Your task to perform on an android device: turn off notifications in google photos Image 0: 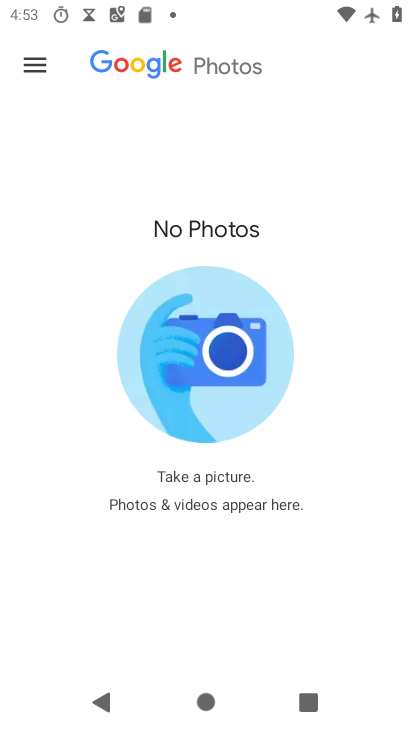
Step 0: press home button
Your task to perform on an android device: turn off notifications in google photos Image 1: 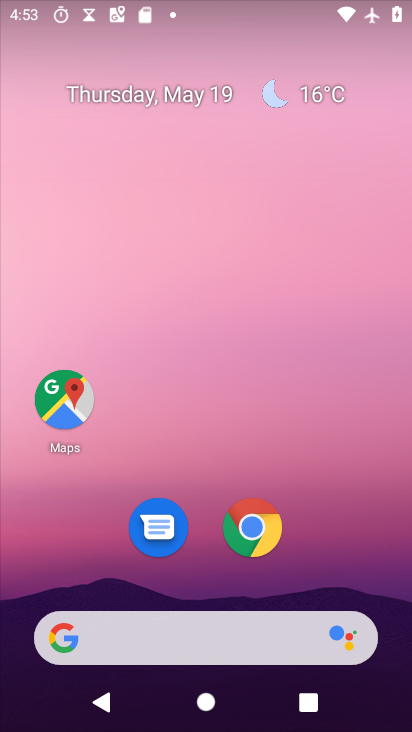
Step 1: drag from (340, 571) to (172, 109)
Your task to perform on an android device: turn off notifications in google photos Image 2: 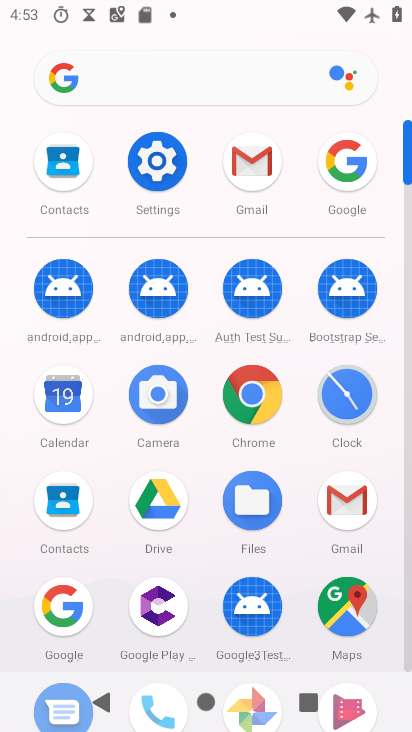
Step 2: drag from (301, 644) to (248, 346)
Your task to perform on an android device: turn off notifications in google photos Image 3: 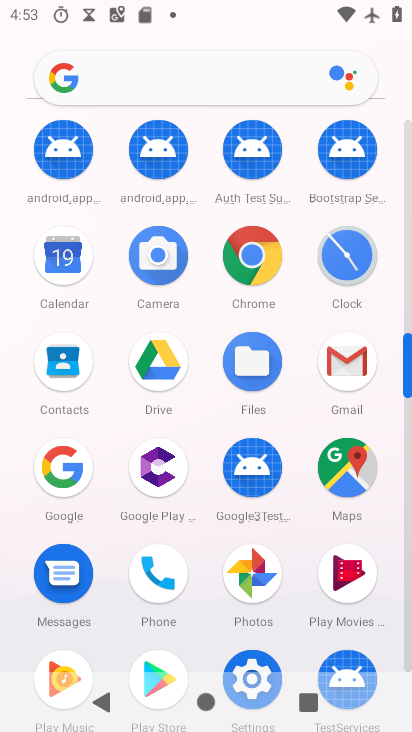
Step 3: click (249, 574)
Your task to perform on an android device: turn off notifications in google photos Image 4: 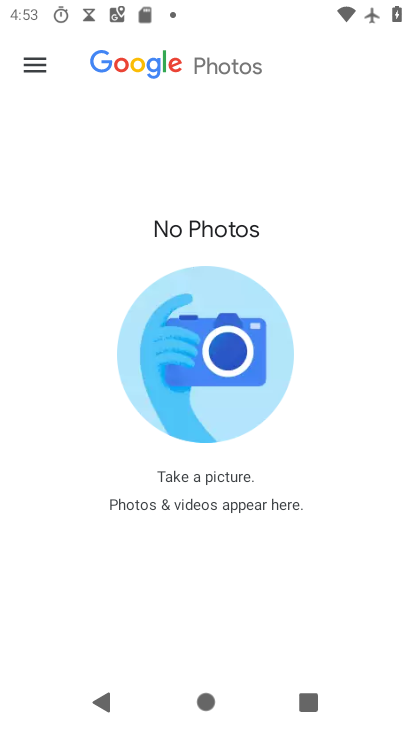
Step 4: click (36, 62)
Your task to perform on an android device: turn off notifications in google photos Image 5: 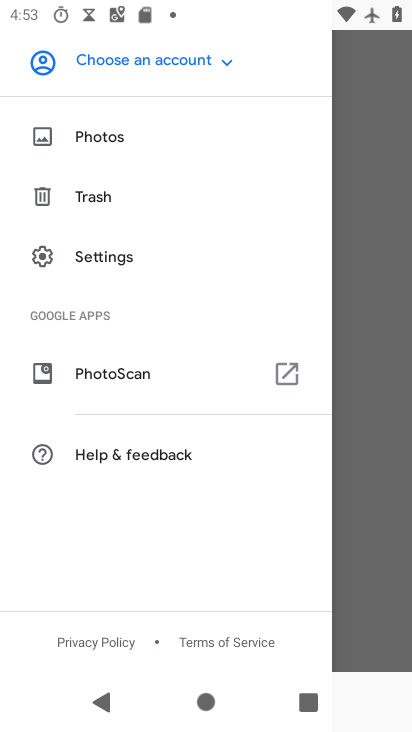
Step 5: click (116, 256)
Your task to perform on an android device: turn off notifications in google photos Image 6: 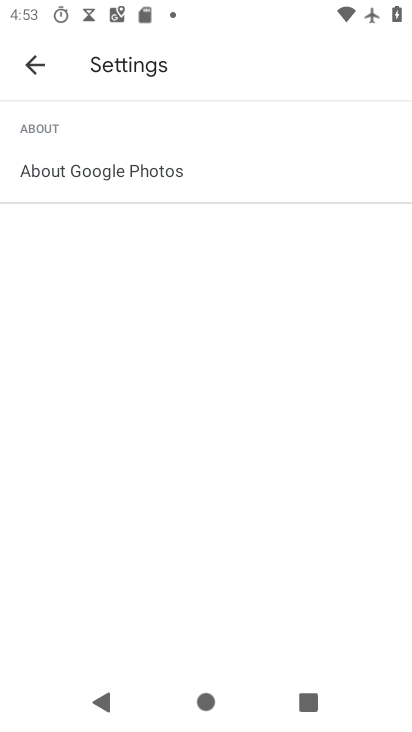
Step 6: click (31, 58)
Your task to perform on an android device: turn off notifications in google photos Image 7: 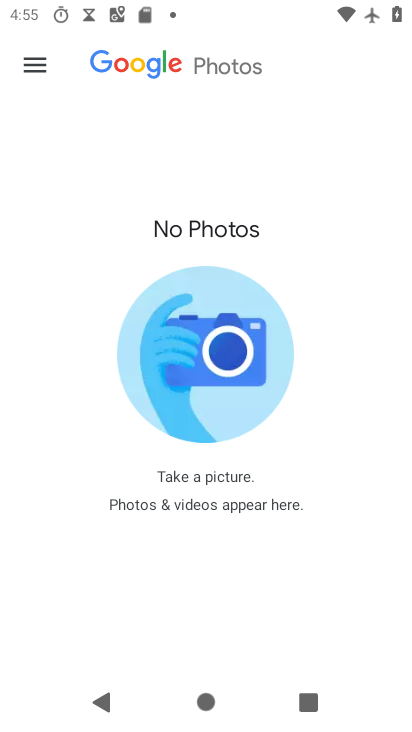
Step 7: task complete